Your task to perform on an android device: Search for Mexican restaurants on Maps Image 0: 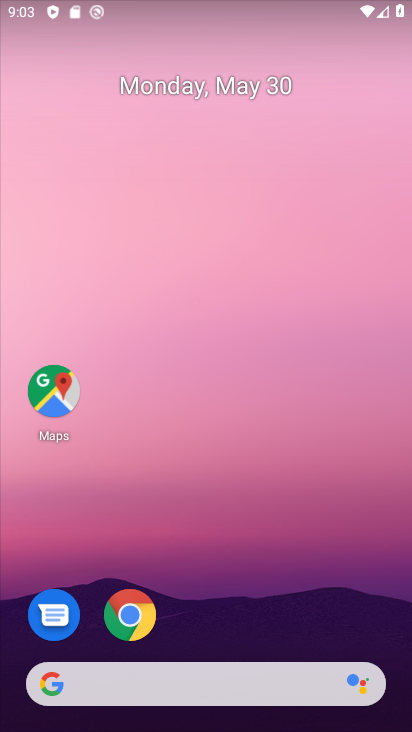
Step 0: click (51, 393)
Your task to perform on an android device: Search for Mexican restaurants on Maps Image 1: 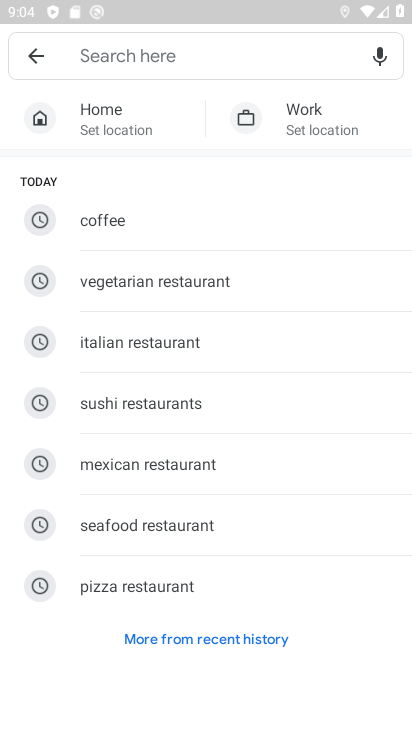
Step 1: click (147, 466)
Your task to perform on an android device: Search for Mexican restaurants on Maps Image 2: 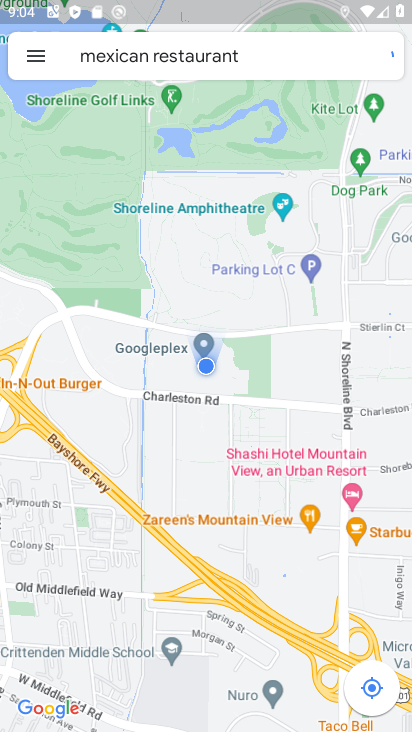
Step 2: task complete